Your task to perform on an android device: toggle improve location accuracy Image 0: 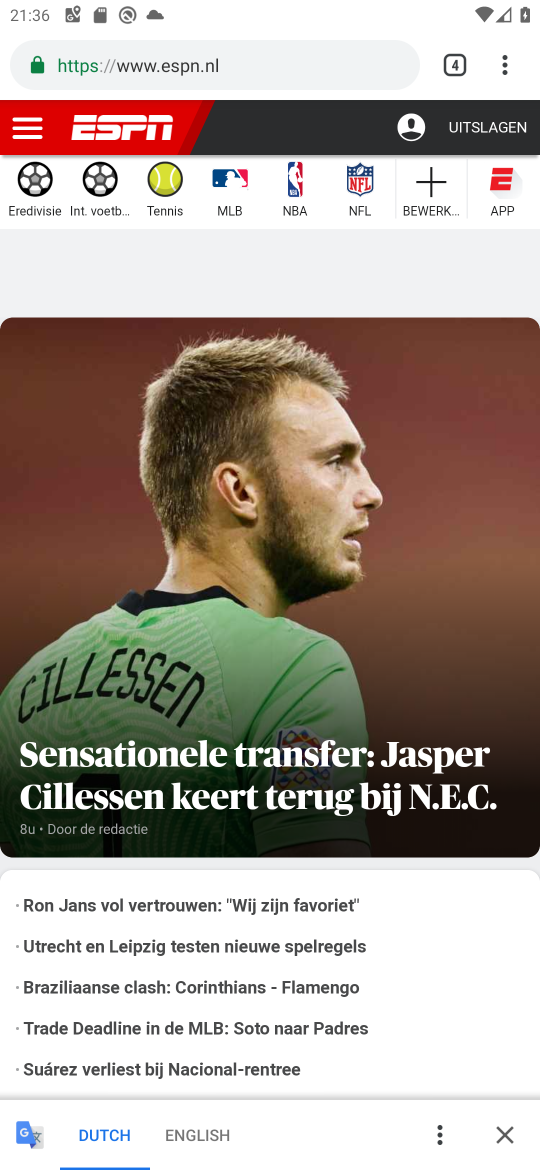
Step 0: press home button
Your task to perform on an android device: toggle improve location accuracy Image 1: 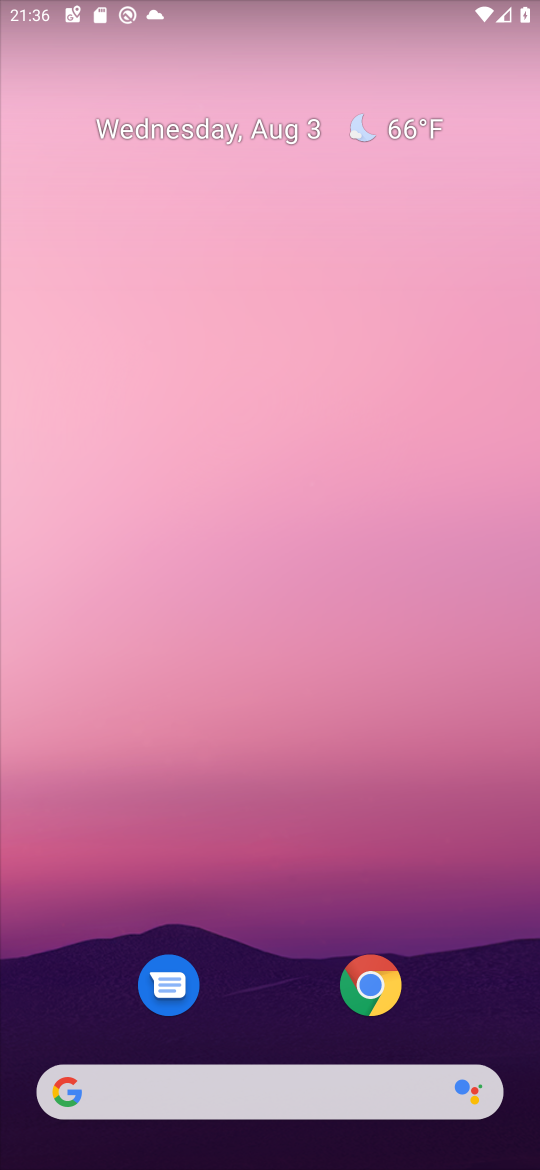
Step 1: drag from (256, 1024) to (230, 266)
Your task to perform on an android device: toggle improve location accuracy Image 2: 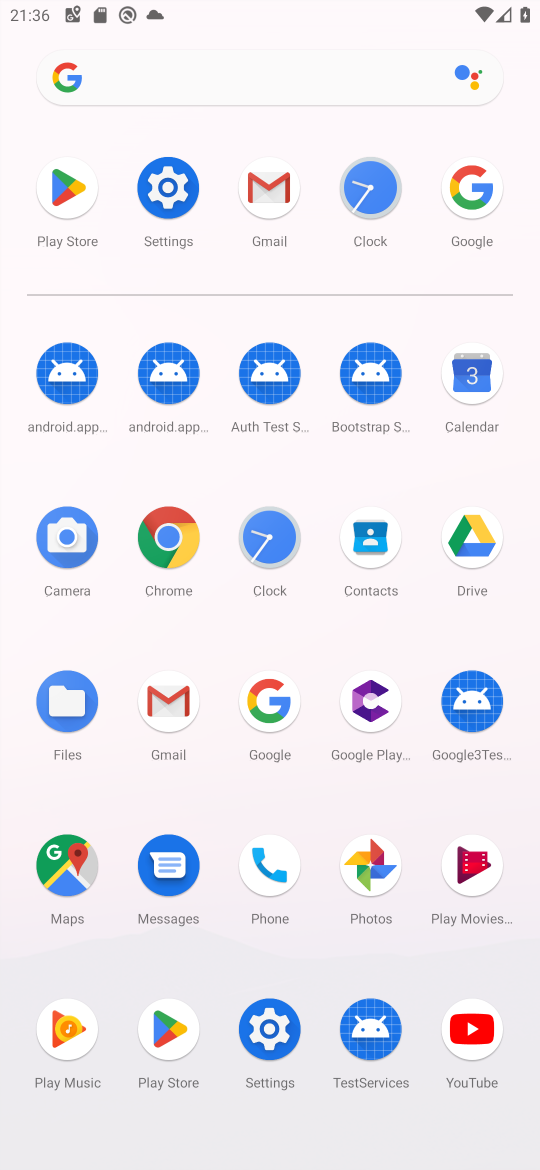
Step 2: click (192, 190)
Your task to perform on an android device: toggle improve location accuracy Image 3: 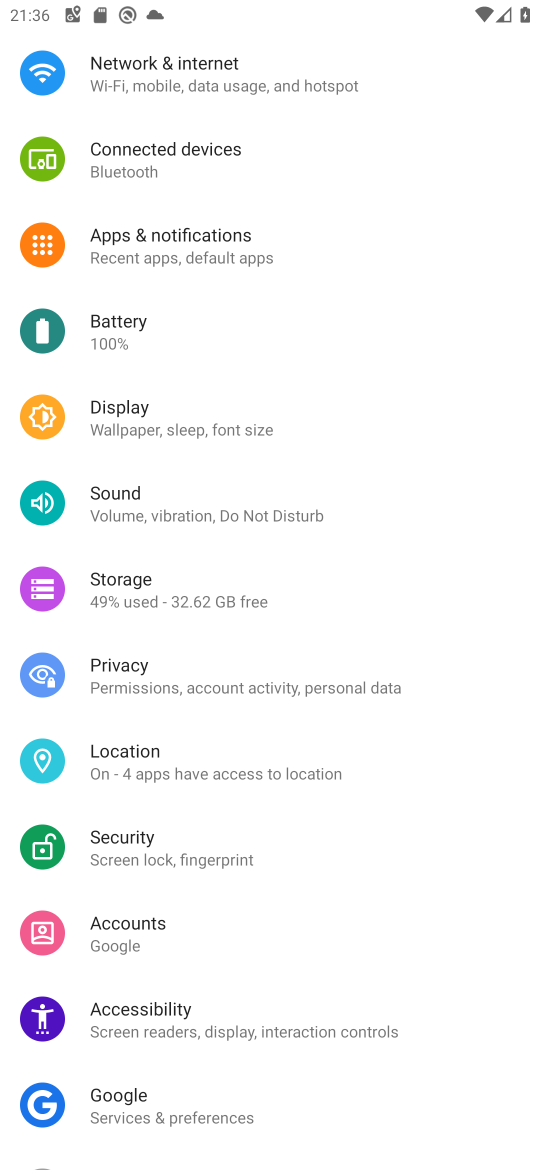
Step 3: click (244, 754)
Your task to perform on an android device: toggle improve location accuracy Image 4: 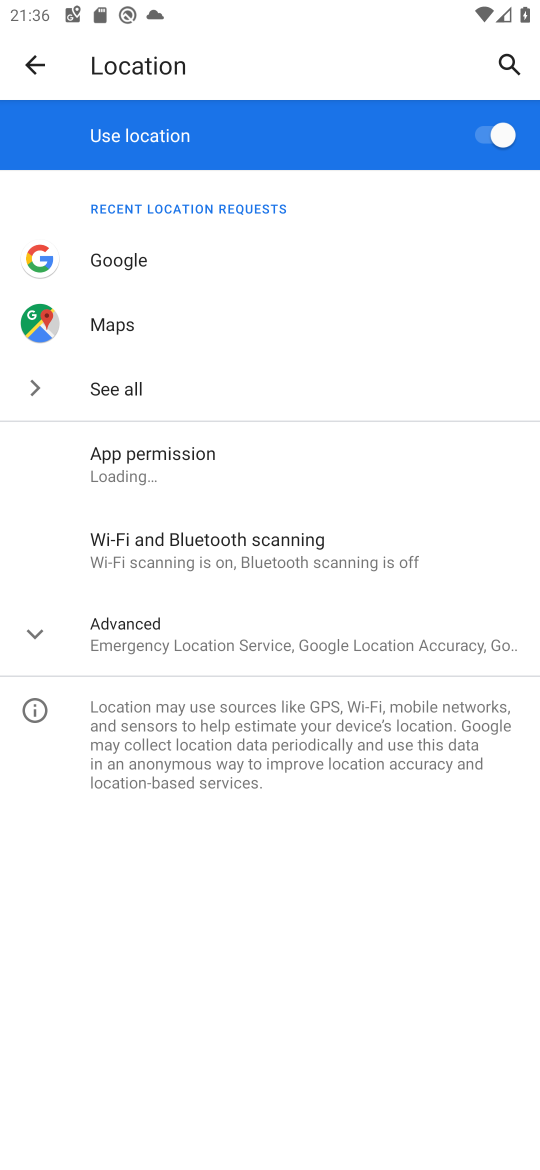
Step 4: click (270, 638)
Your task to perform on an android device: toggle improve location accuracy Image 5: 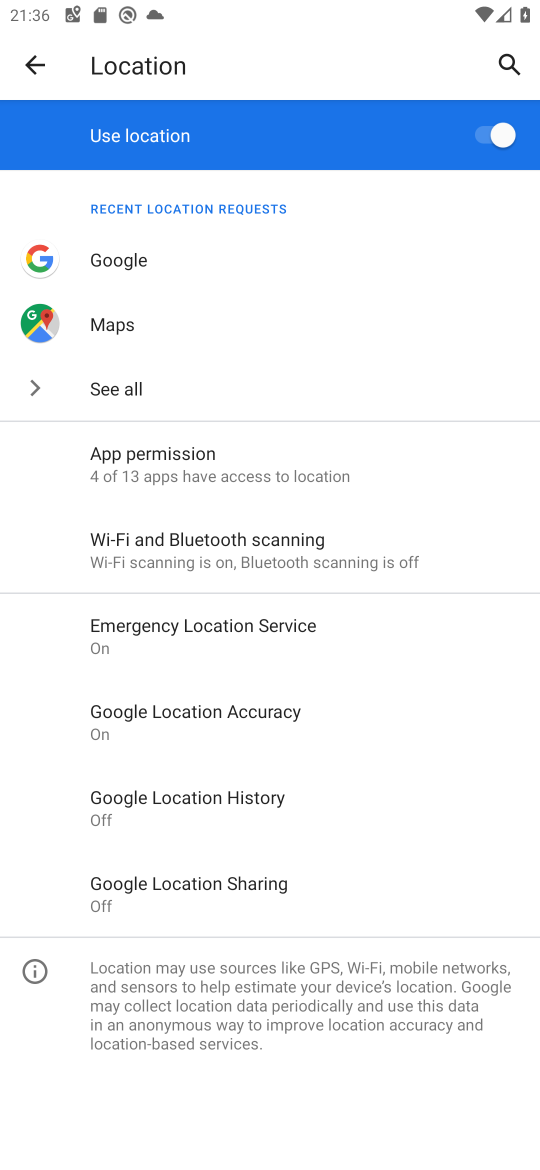
Step 5: click (257, 727)
Your task to perform on an android device: toggle improve location accuracy Image 6: 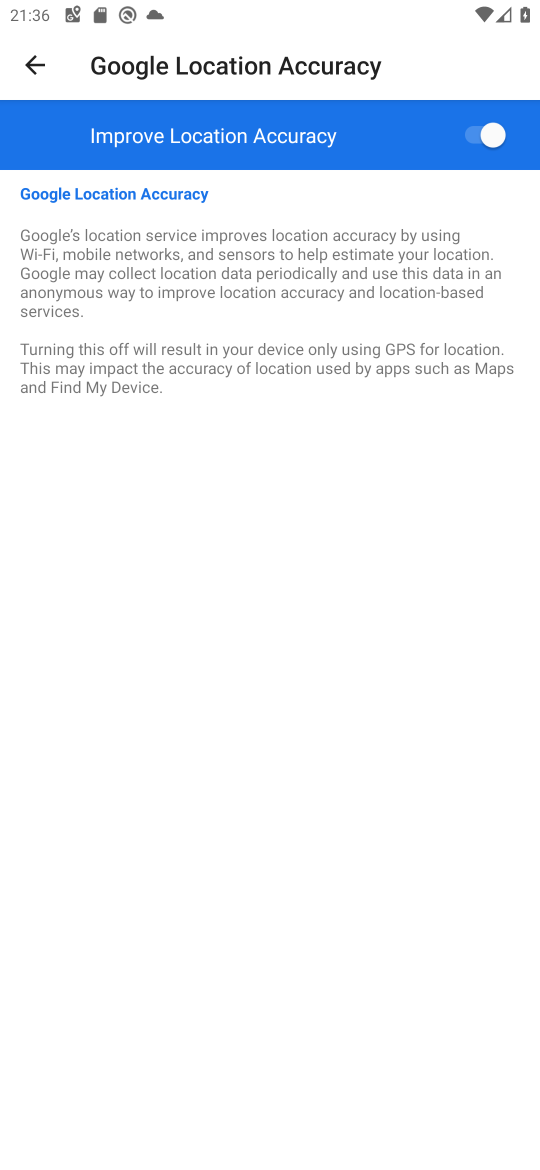
Step 6: click (461, 144)
Your task to perform on an android device: toggle improve location accuracy Image 7: 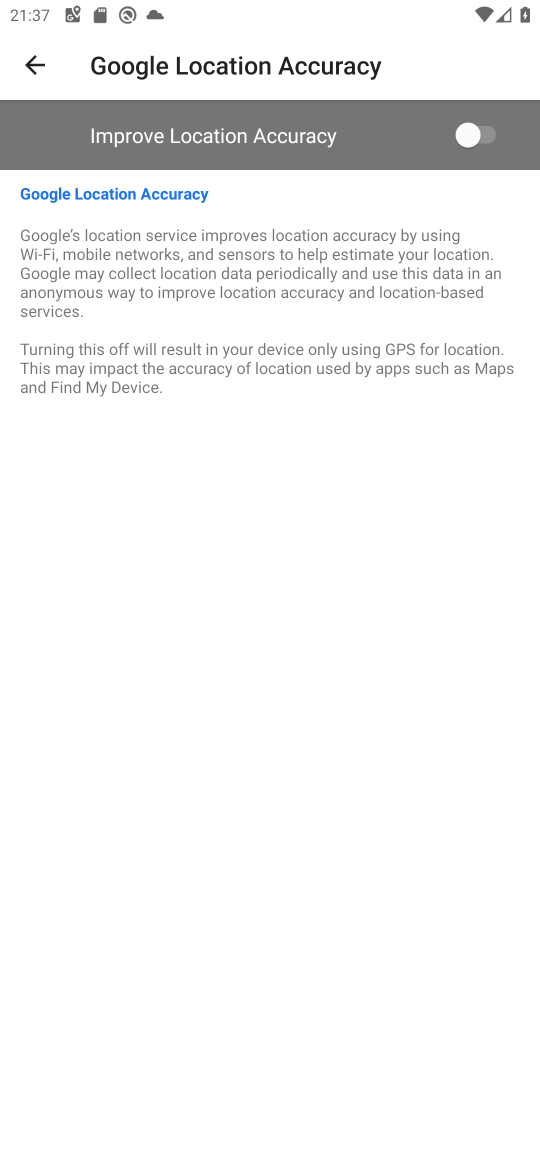
Step 7: task complete